Your task to perform on an android device: Search for Mexican restaurants on Maps Image 0: 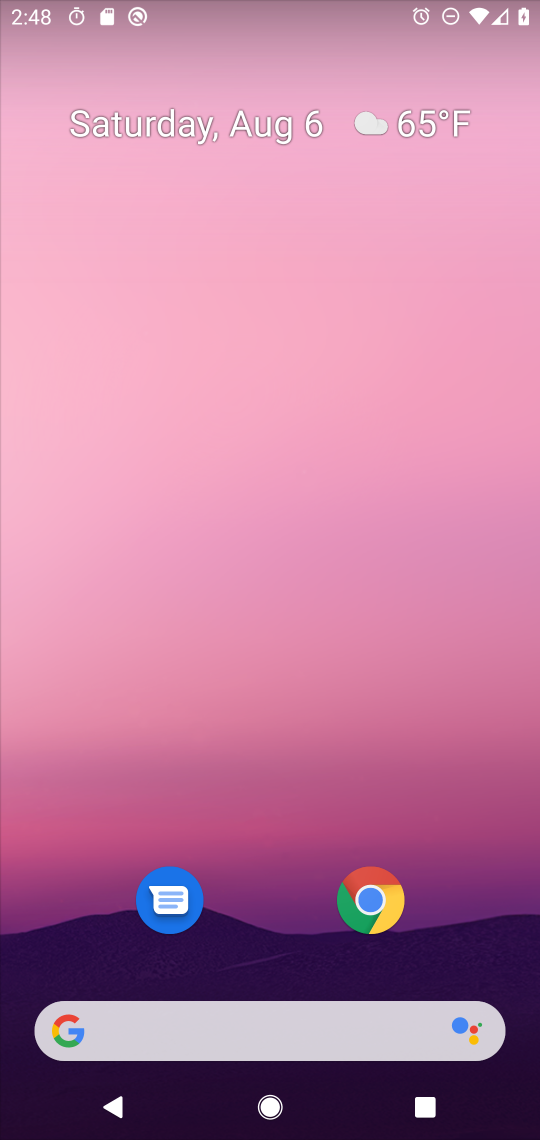
Step 0: drag from (272, 985) to (266, 297)
Your task to perform on an android device: Search for Mexican restaurants on Maps Image 1: 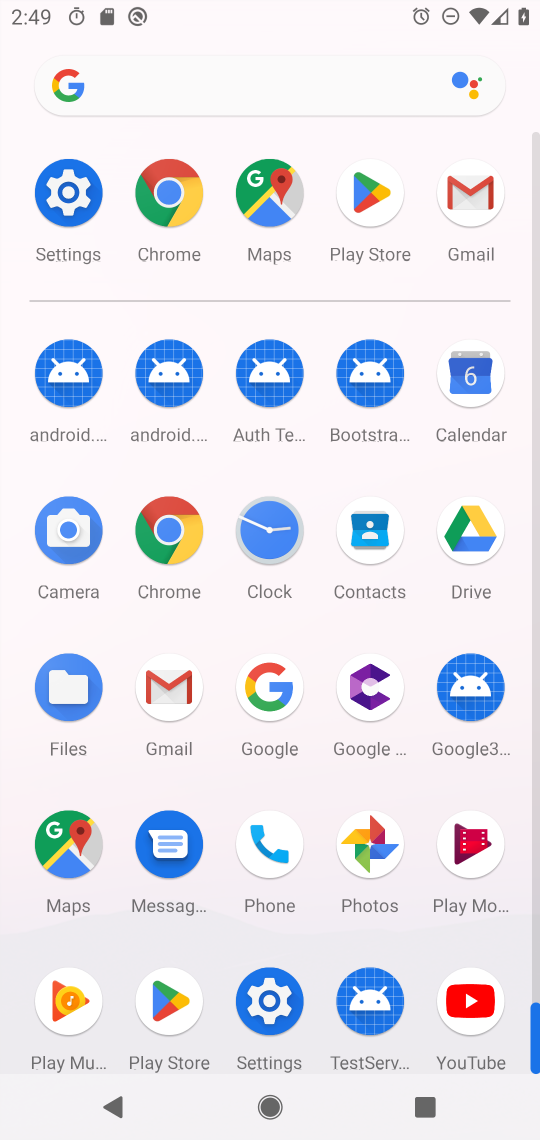
Step 1: click (58, 825)
Your task to perform on an android device: Search for Mexican restaurants on Maps Image 2: 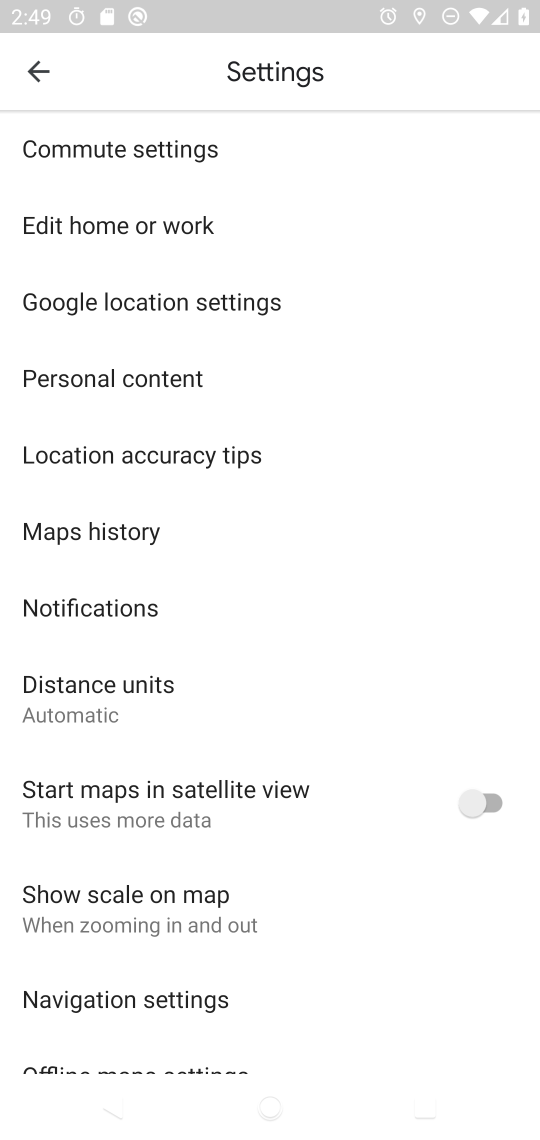
Step 2: click (30, 74)
Your task to perform on an android device: Search for Mexican restaurants on Maps Image 3: 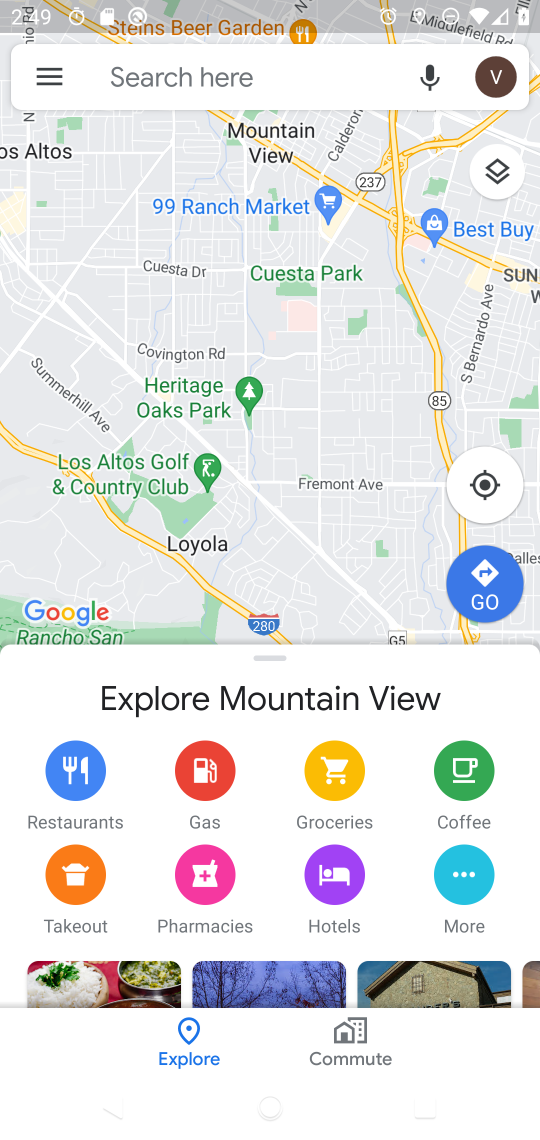
Step 3: click (229, 76)
Your task to perform on an android device: Search for Mexican restaurants on Maps Image 4: 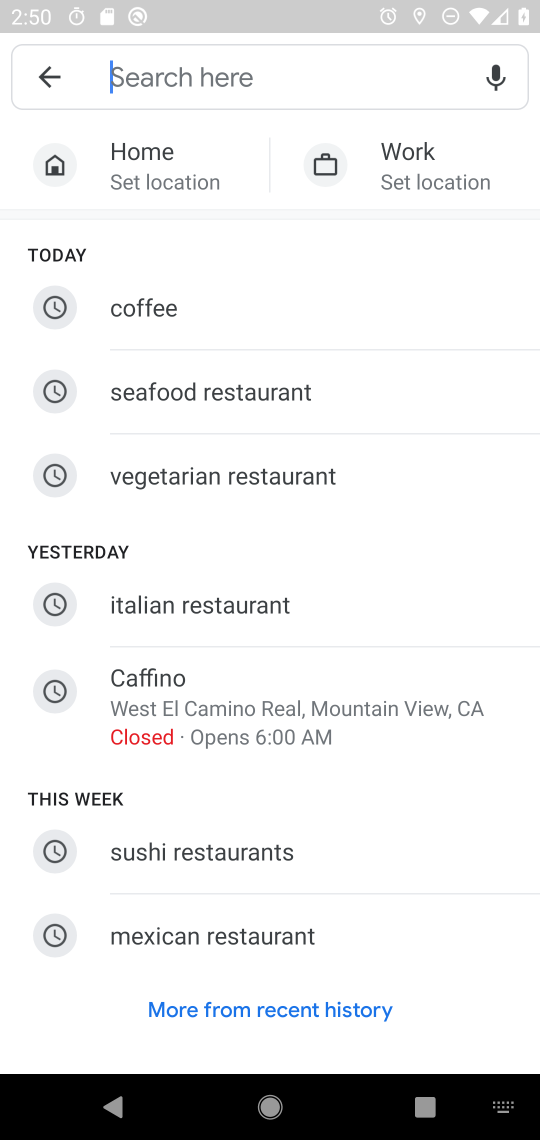
Step 4: type "Mexican restaurants"
Your task to perform on an android device: Search for Mexican restaurants on Maps Image 5: 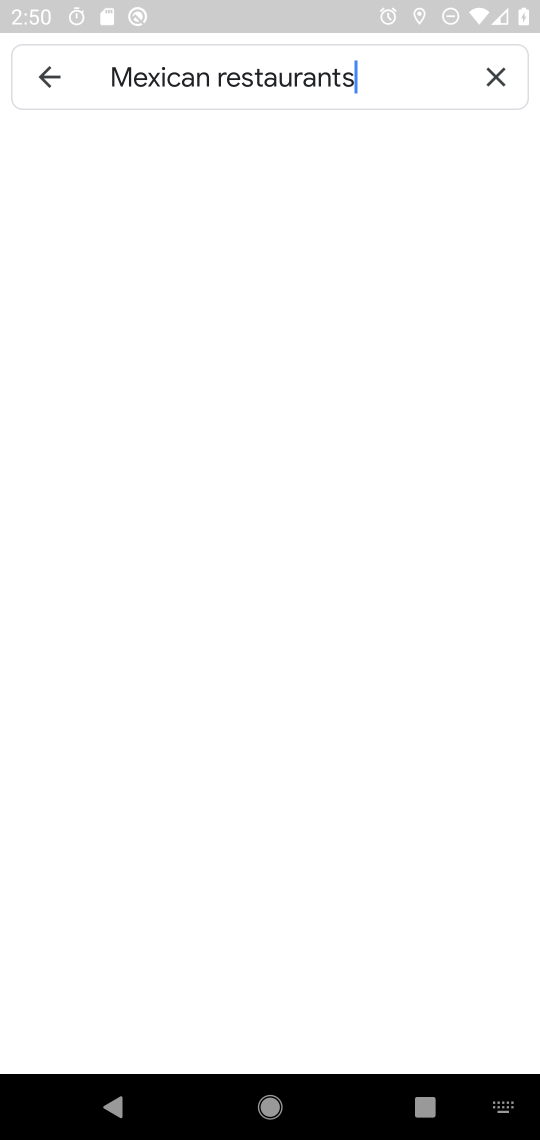
Step 5: type ""
Your task to perform on an android device: Search for Mexican restaurants on Maps Image 6: 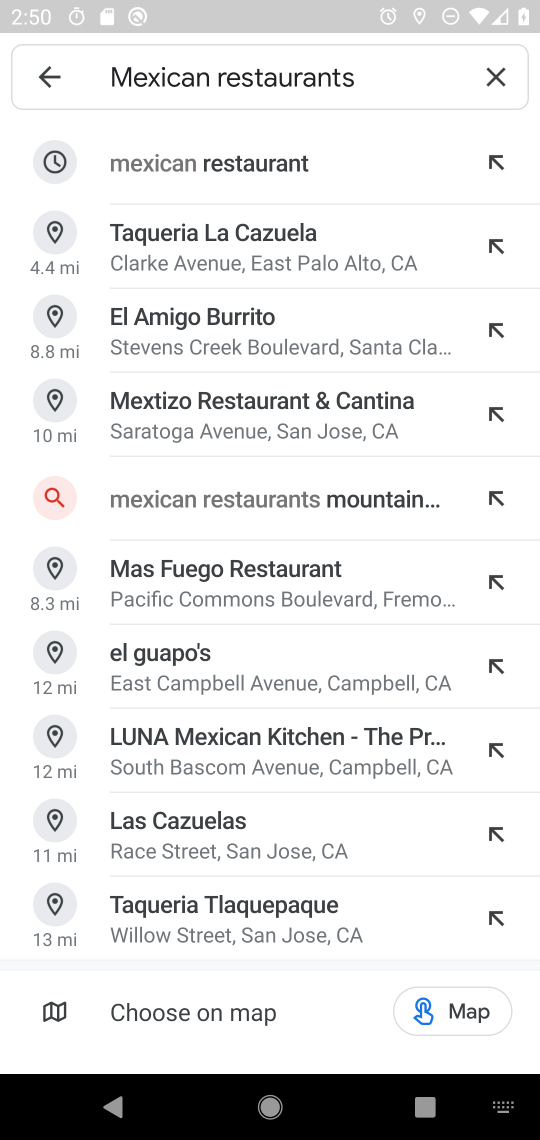
Step 6: click (232, 150)
Your task to perform on an android device: Search for Mexican restaurants on Maps Image 7: 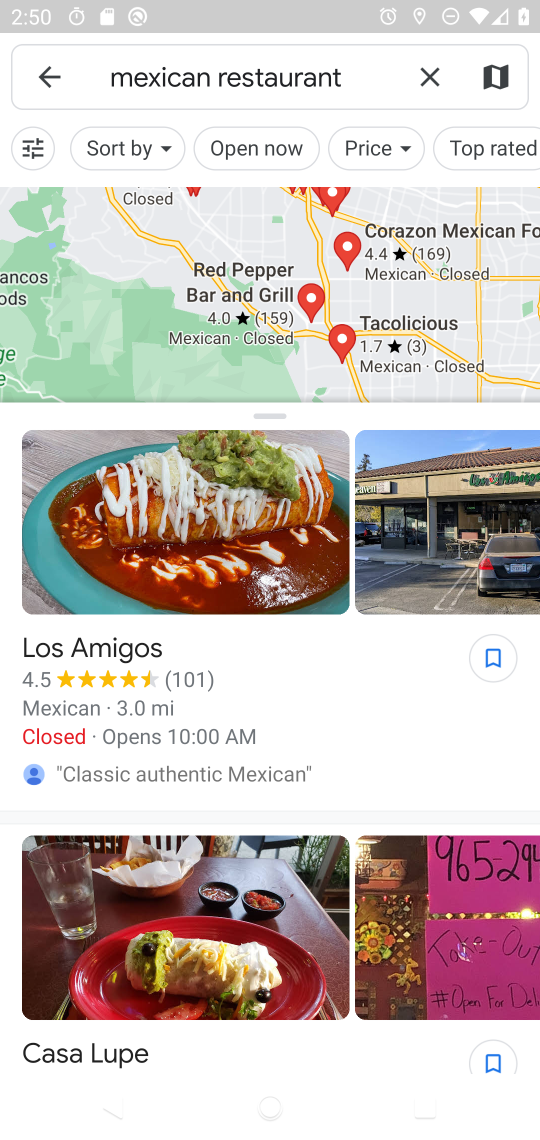
Step 7: task complete